Your task to perform on an android device: open app "Skype" Image 0: 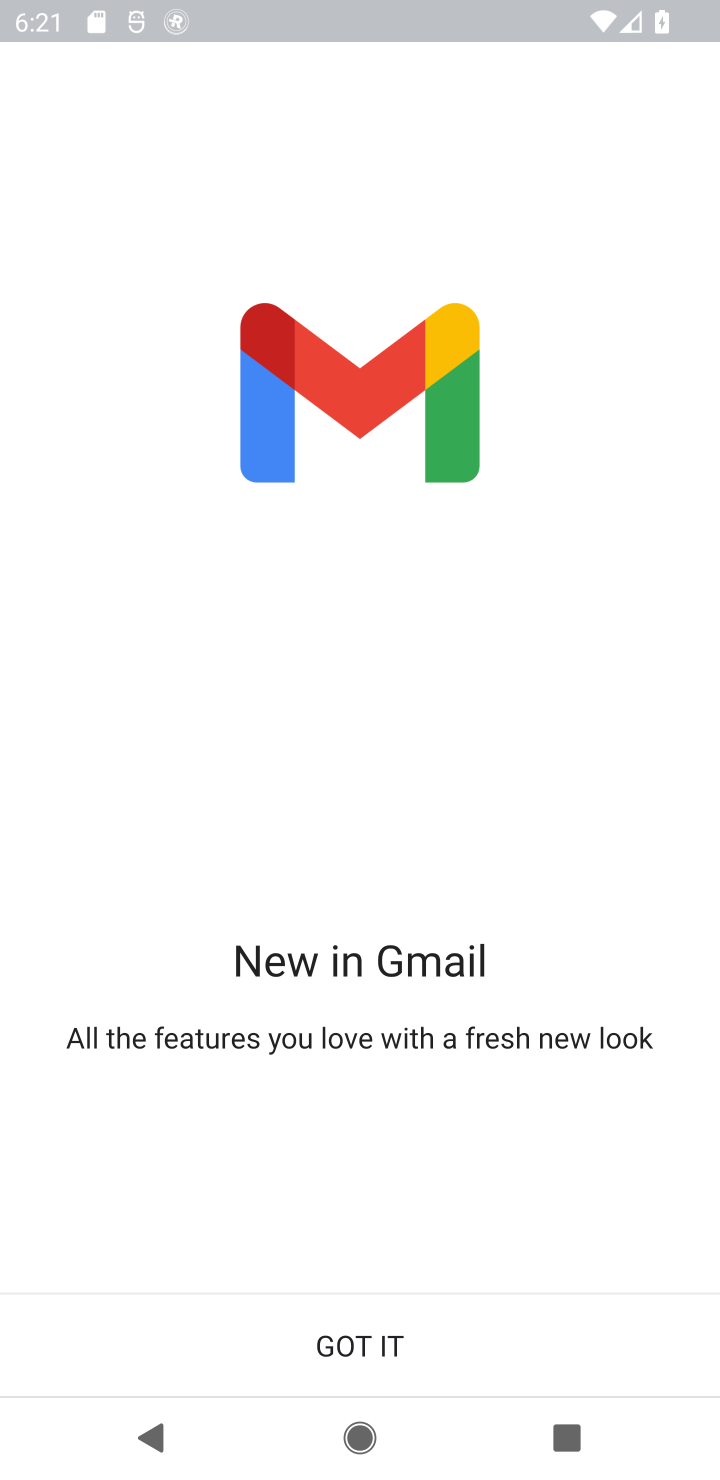
Step 0: press home button
Your task to perform on an android device: open app "Skype" Image 1: 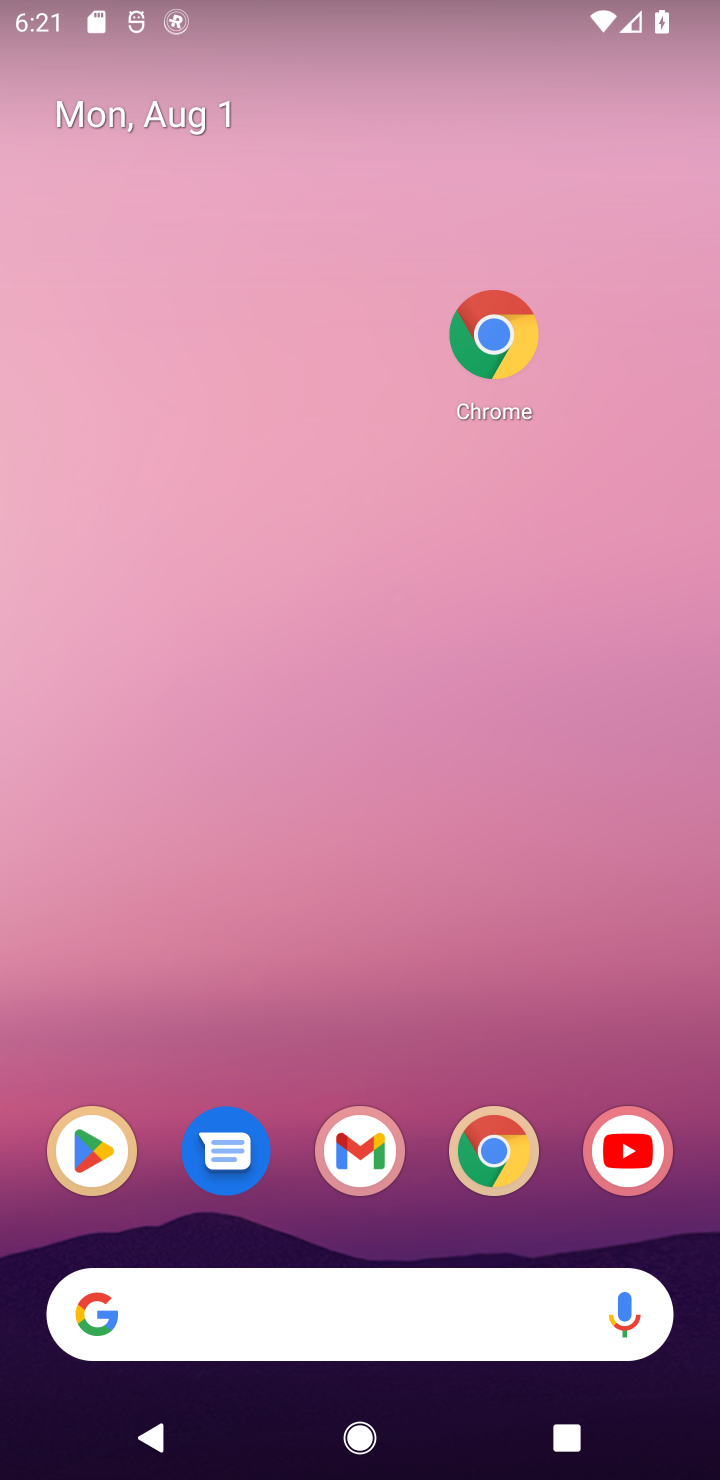
Step 1: click (87, 1158)
Your task to perform on an android device: open app "Skype" Image 2: 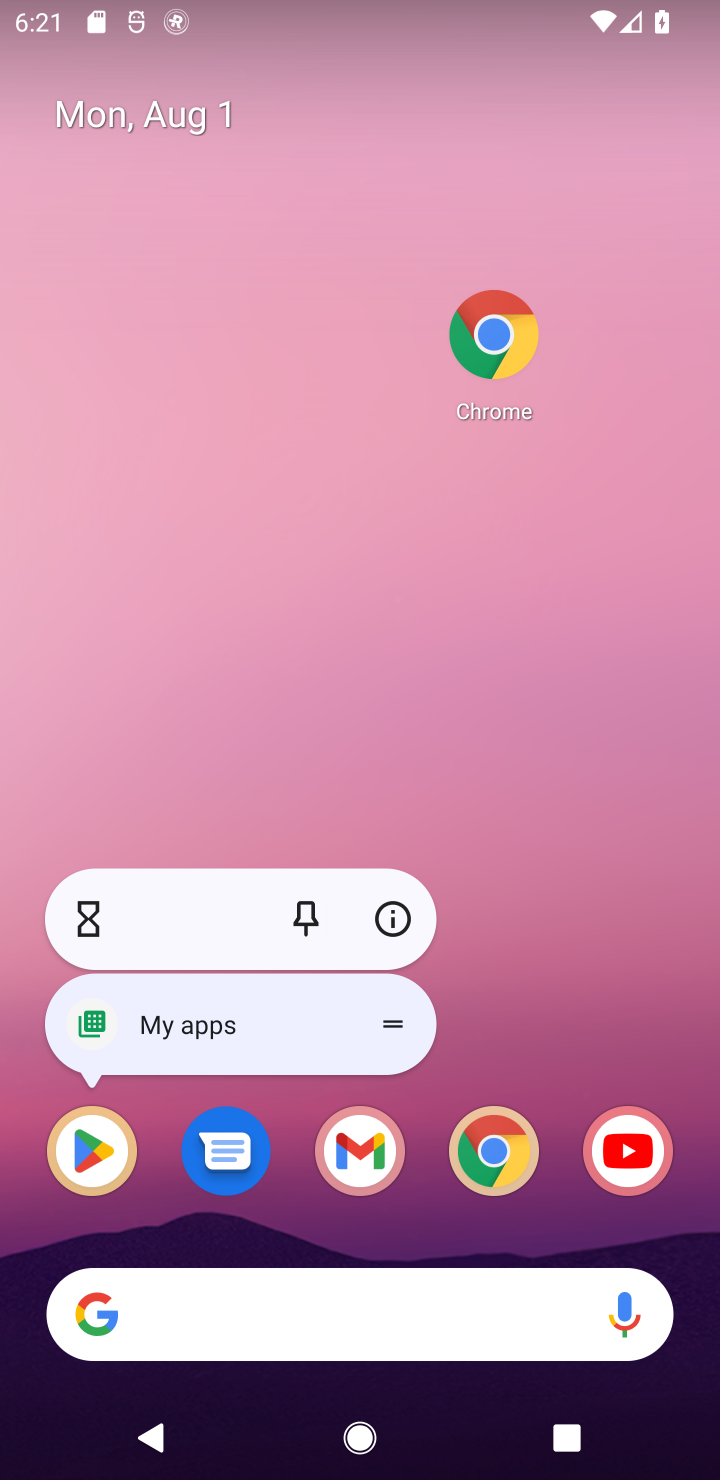
Step 2: click (87, 1158)
Your task to perform on an android device: open app "Skype" Image 3: 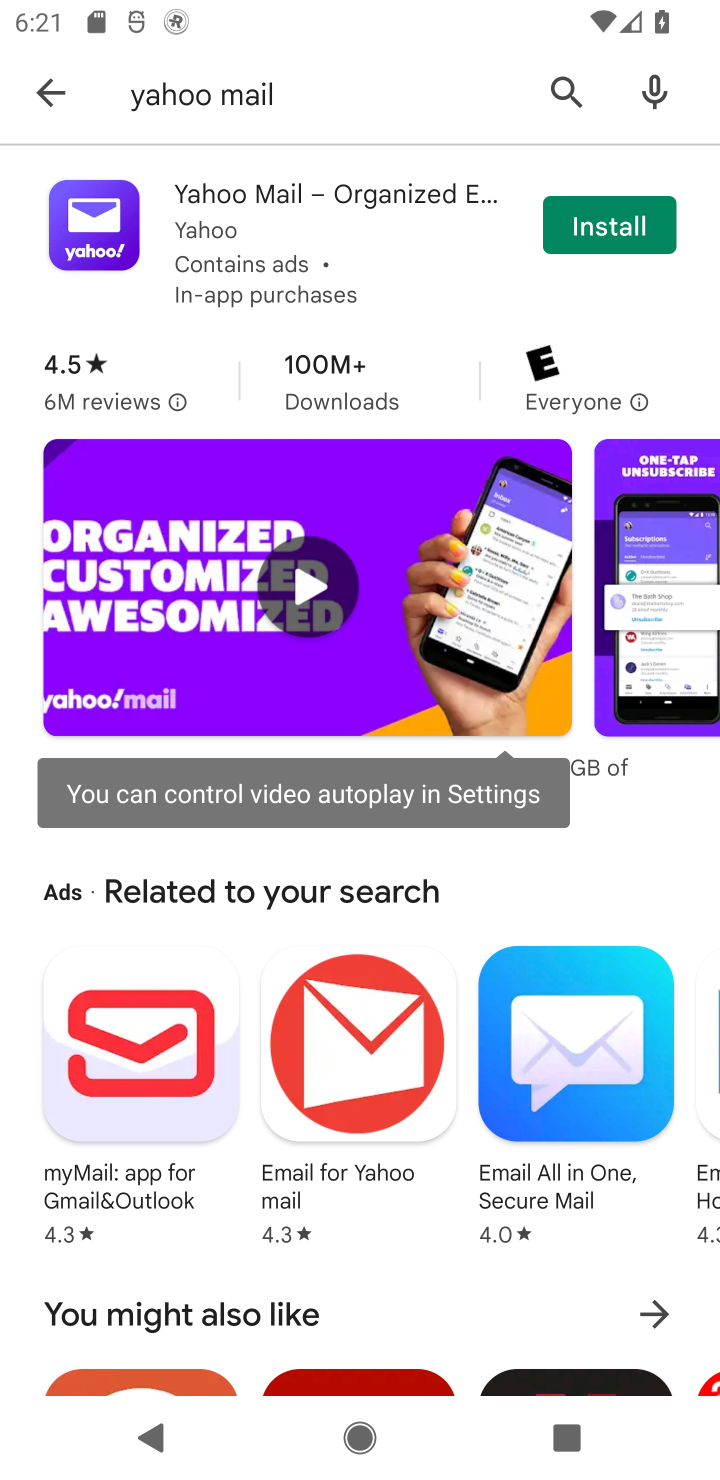
Step 3: click (550, 65)
Your task to perform on an android device: open app "Skype" Image 4: 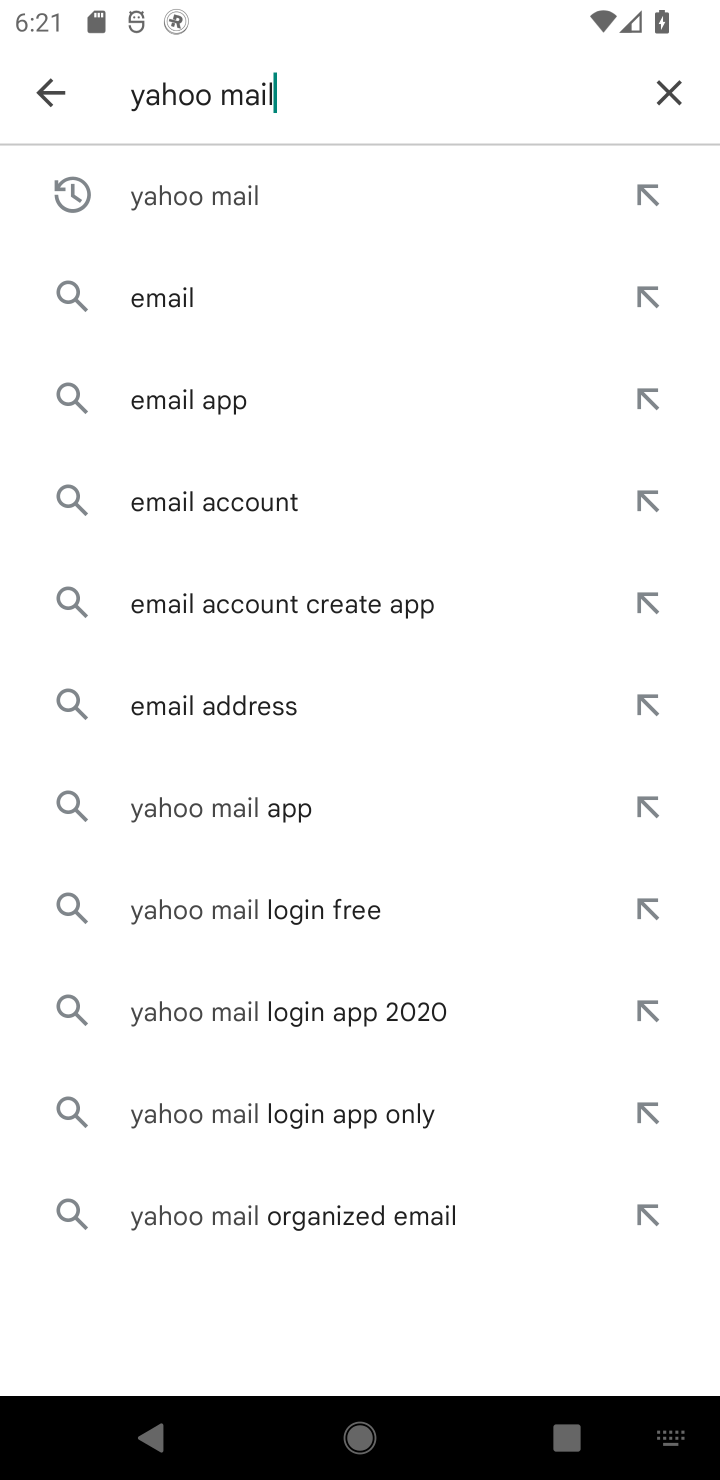
Step 4: click (672, 108)
Your task to perform on an android device: open app "Skype" Image 5: 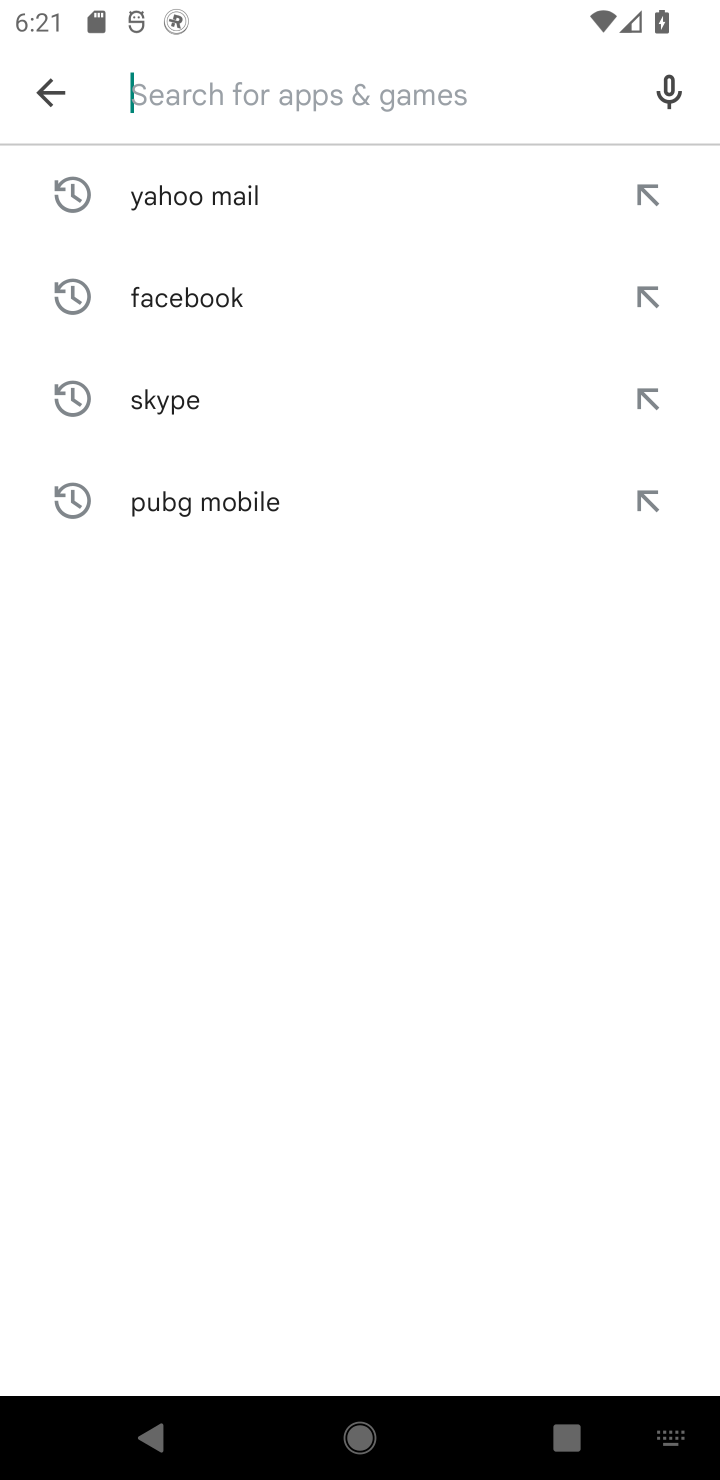
Step 5: type "Skype"
Your task to perform on an android device: open app "Skype" Image 6: 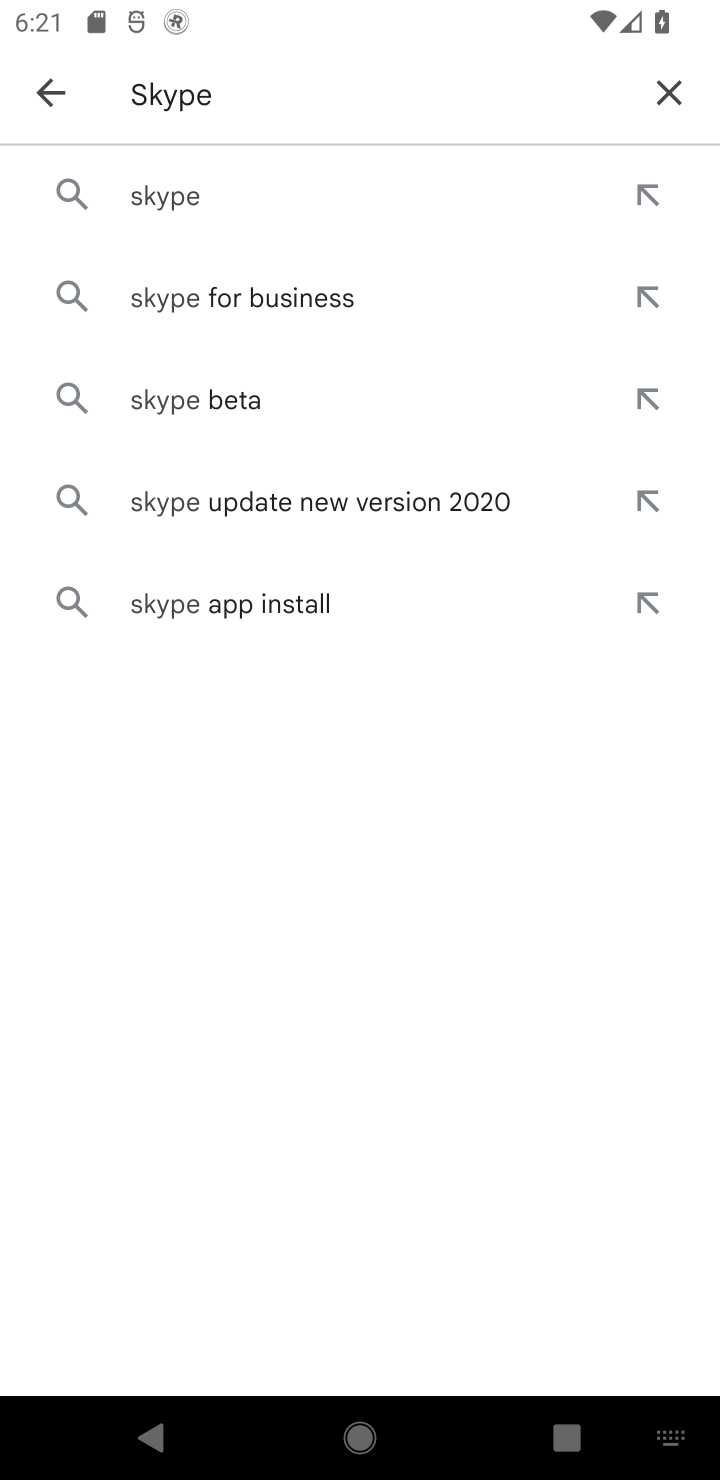
Step 6: click (189, 203)
Your task to perform on an android device: open app "Skype" Image 7: 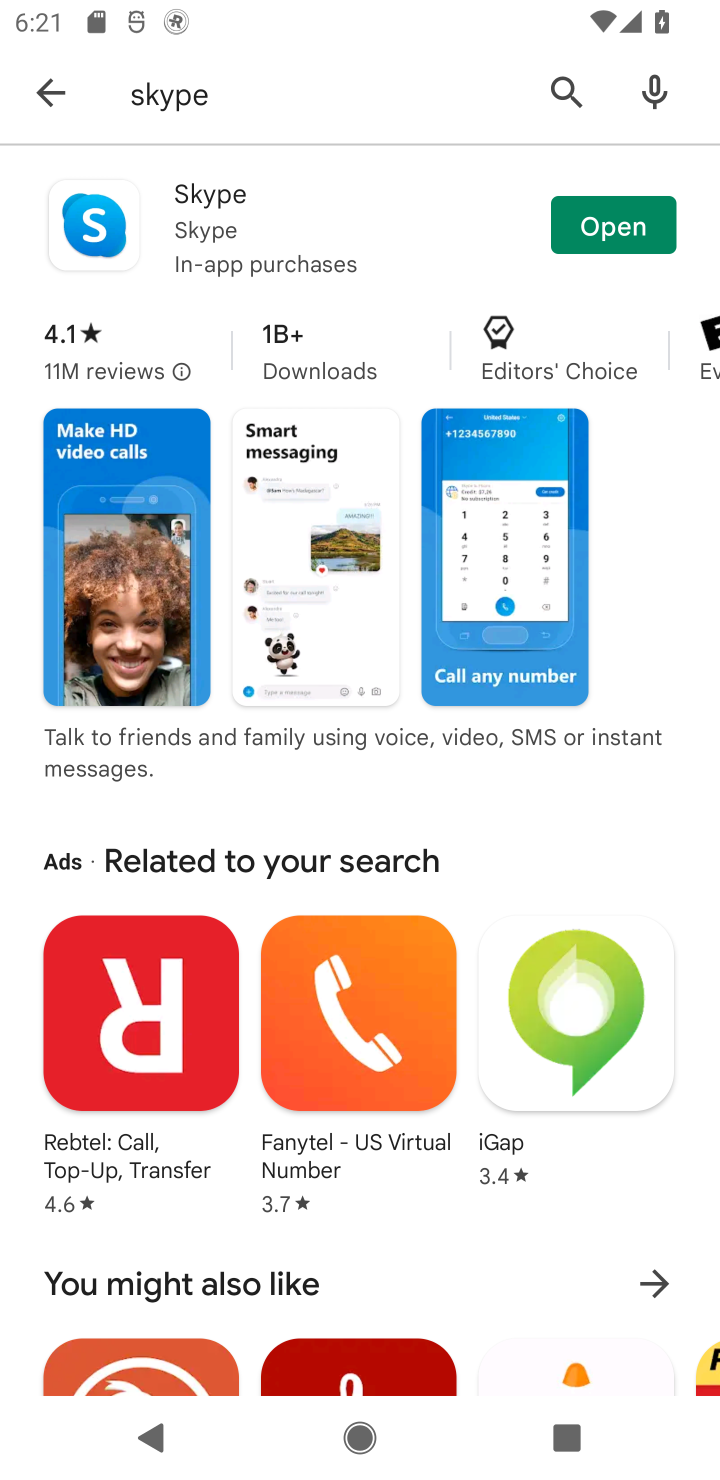
Step 7: click (570, 244)
Your task to perform on an android device: open app "Skype" Image 8: 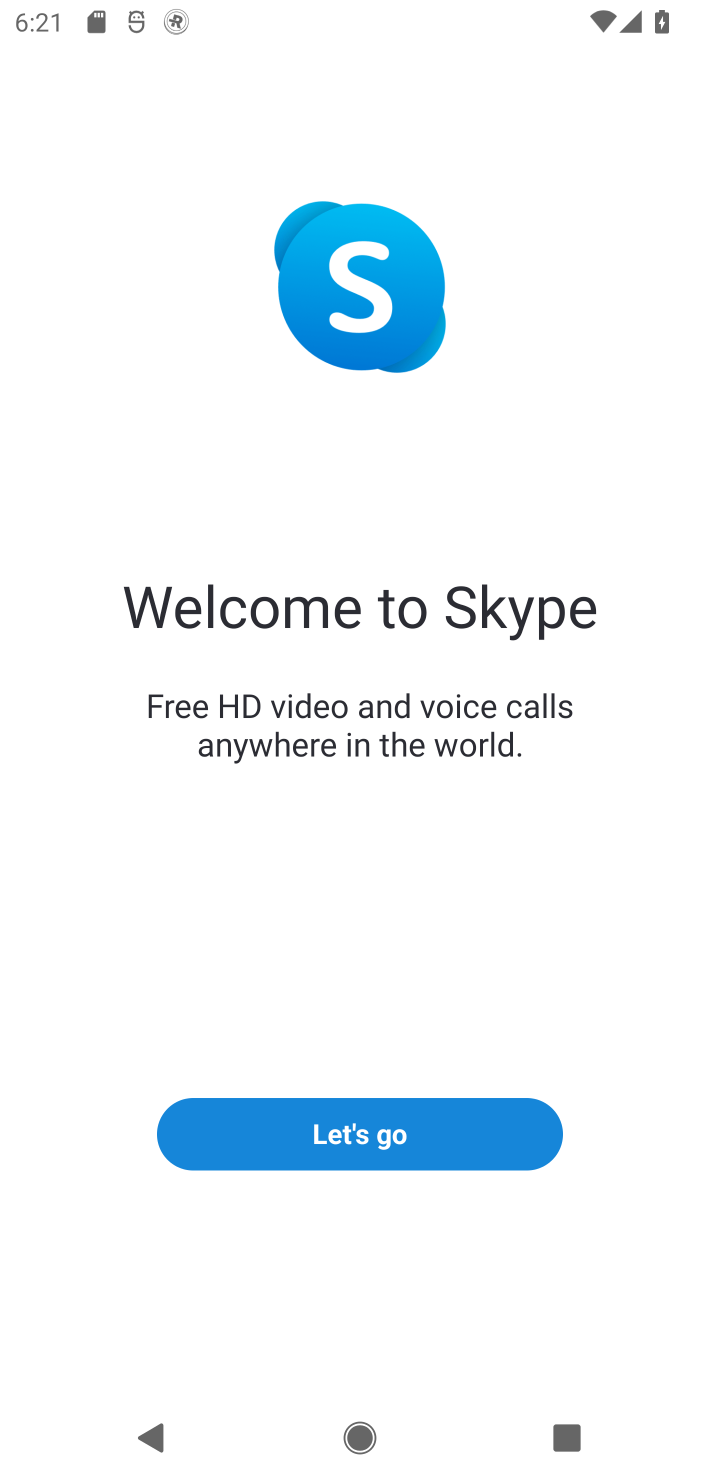
Step 8: task complete